Your task to perform on an android device: Open battery settings Image 0: 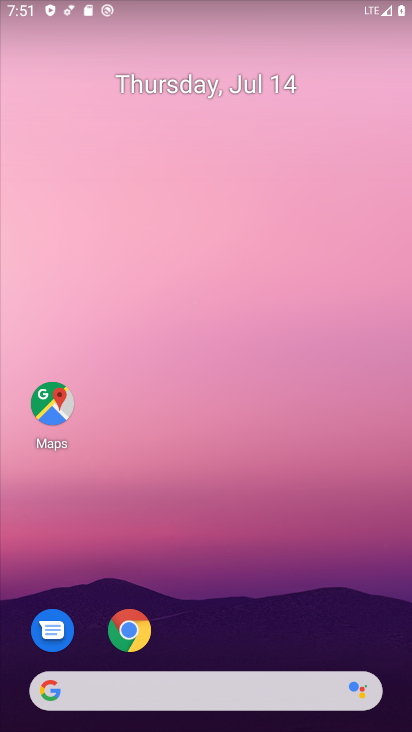
Step 0: drag from (267, 385) to (279, 226)
Your task to perform on an android device: Open battery settings Image 1: 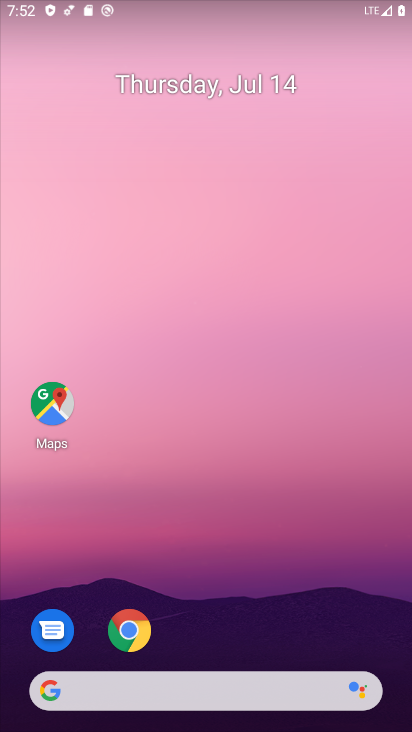
Step 1: drag from (205, 615) to (253, 227)
Your task to perform on an android device: Open battery settings Image 2: 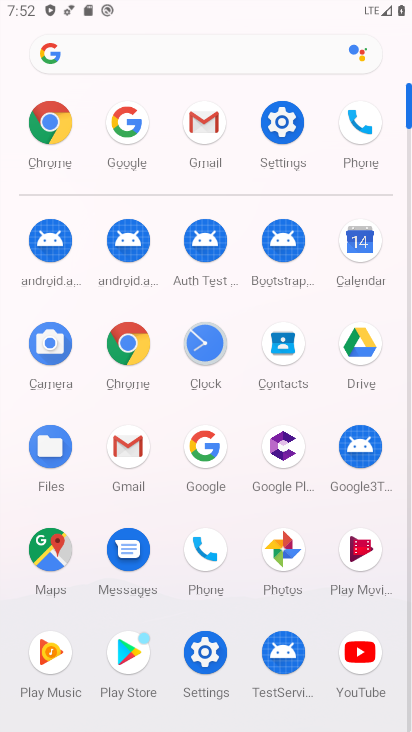
Step 2: click (279, 116)
Your task to perform on an android device: Open battery settings Image 3: 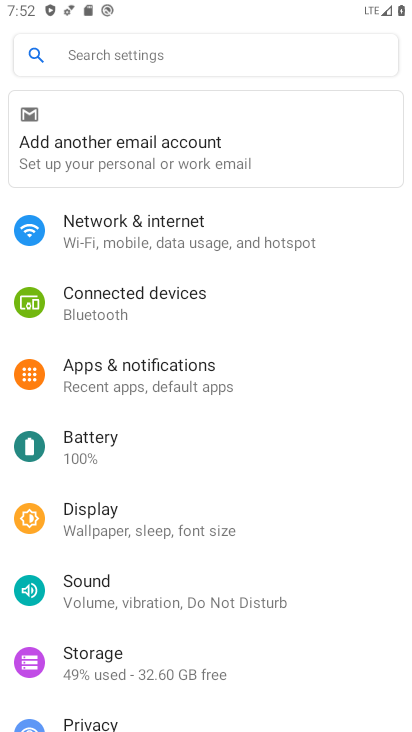
Step 3: click (104, 442)
Your task to perform on an android device: Open battery settings Image 4: 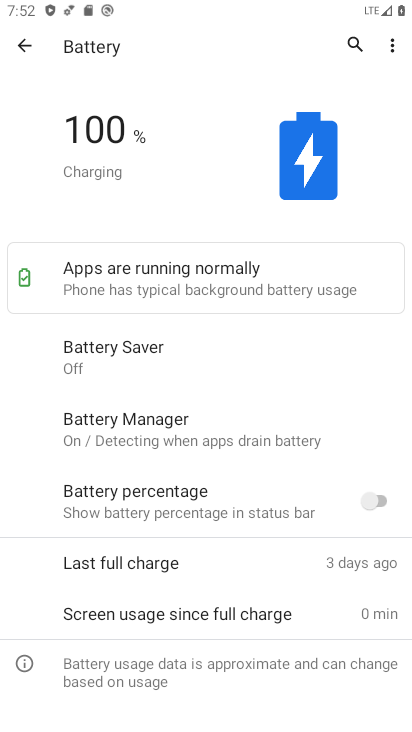
Step 4: task complete